Your task to perform on an android device: What is the recent news? Image 0: 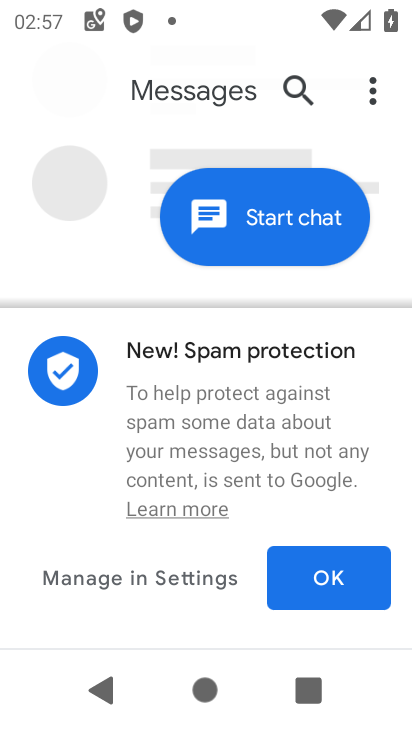
Step 0: press home button
Your task to perform on an android device: What is the recent news? Image 1: 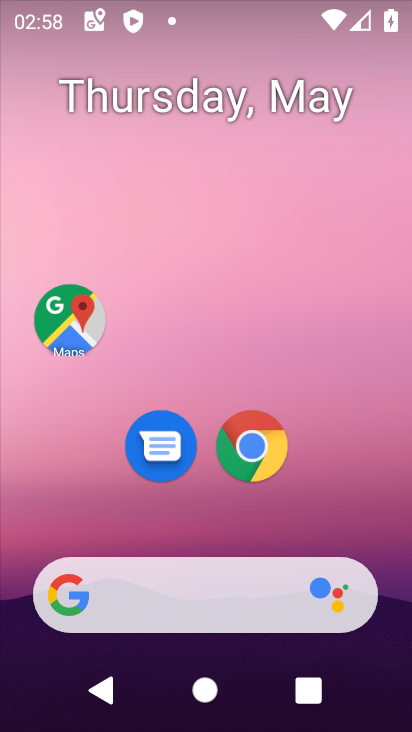
Step 1: click (110, 600)
Your task to perform on an android device: What is the recent news? Image 2: 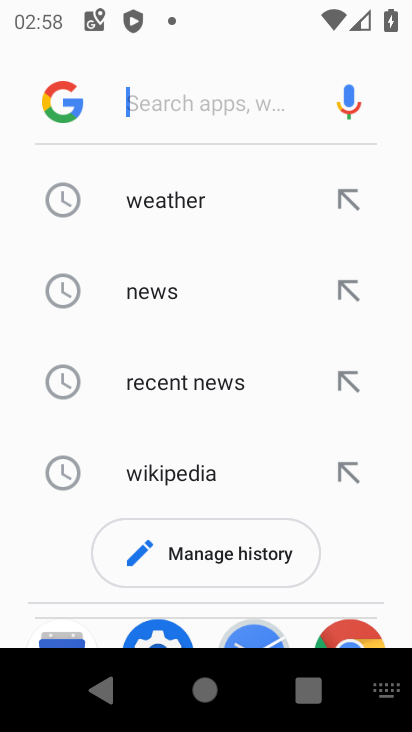
Step 2: click (157, 385)
Your task to perform on an android device: What is the recent news? Image 3: 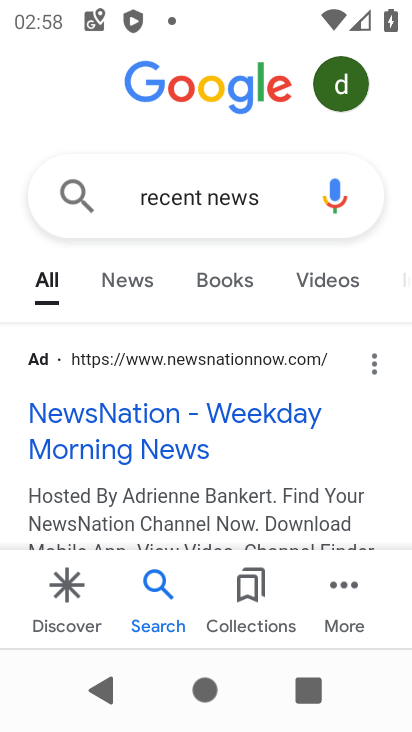
Step 3: click (139, 281)
Your task to perform on an android device: What is the recent news? Image 4: 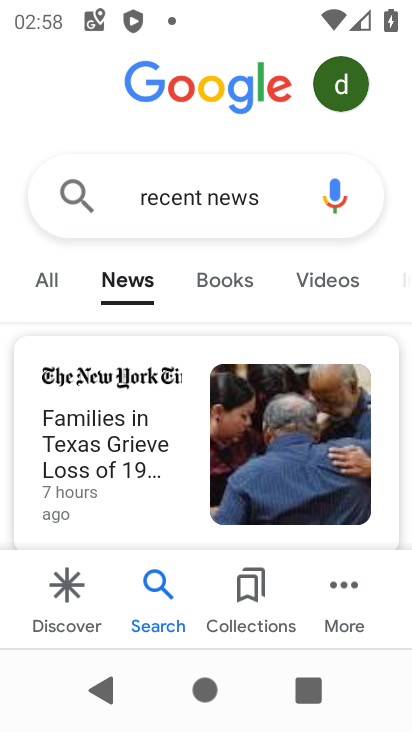
Step 4: drag from (147, 501) to (201, 204)
Your task to perform on an android device: What is the recent news? Image 5: 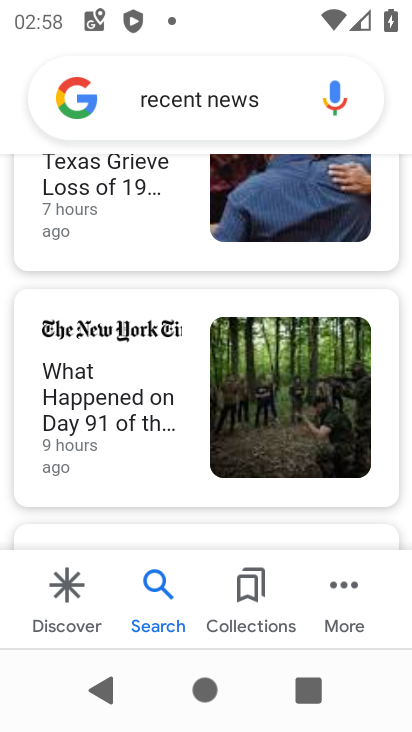
Step 5: drag from (162, 464) to (159, 133)
Your task to perform on an android device: What is the recent news? Image 6: 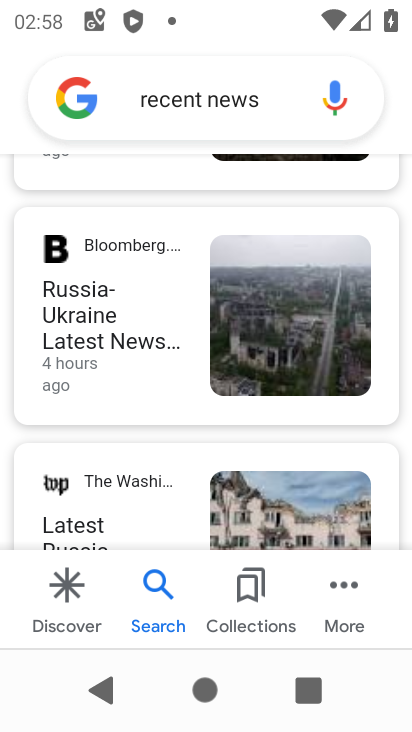
Step 6: drag from (153, 483) to (154, 216)
Your task to perform on an android device: What is the recent news? Image 7: 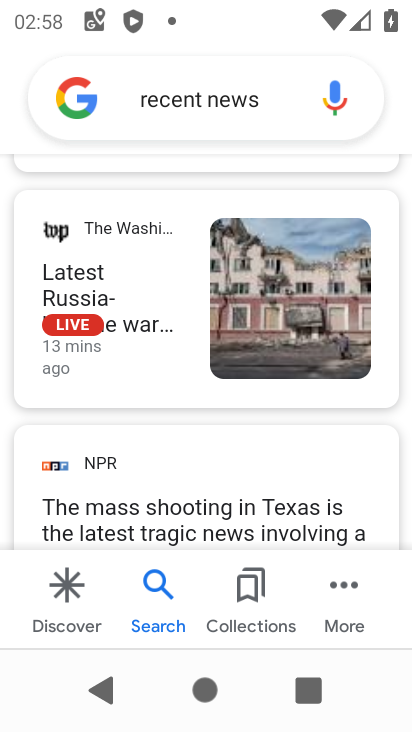
Step 7: click (112, 278)
Your task to perform on an android device: What is the recent news? Image 8: 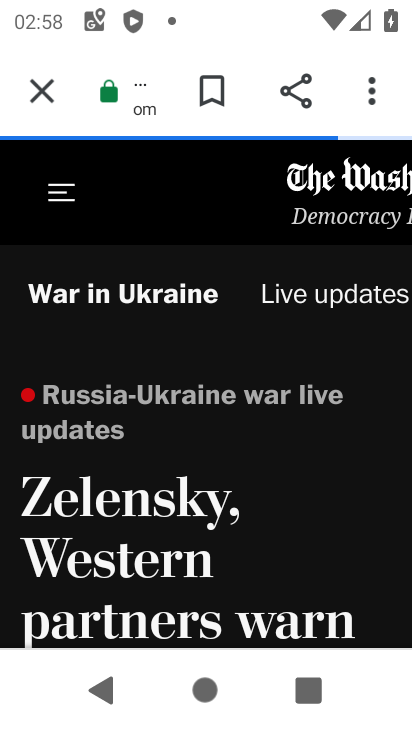
Step 8: task complete